Your task to perform on an android device: turn off translation in the chrome app Image 0: 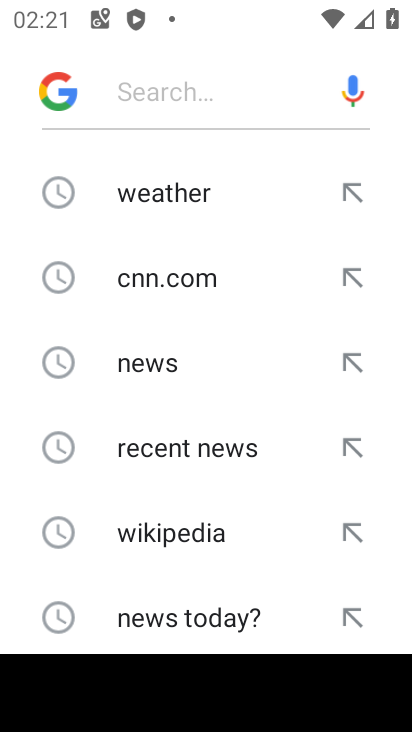
Step 0: press home button
Your task to perform on an android device: turn off translation in the chrome app Image 1: 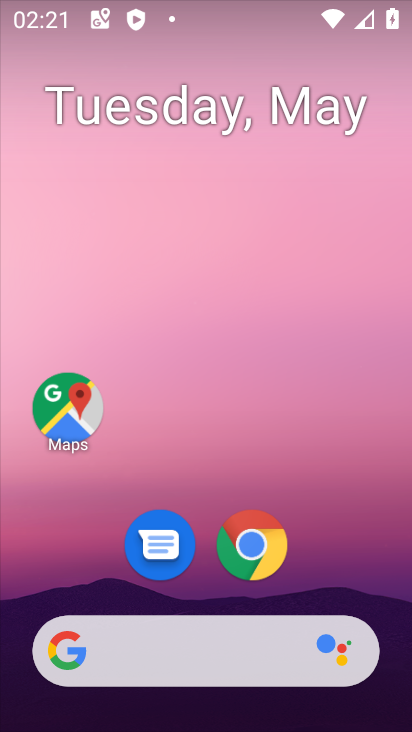
Step 1: click (250, 542)
Your task to perform on an android device: turn off translation in the chrome app Image 2: 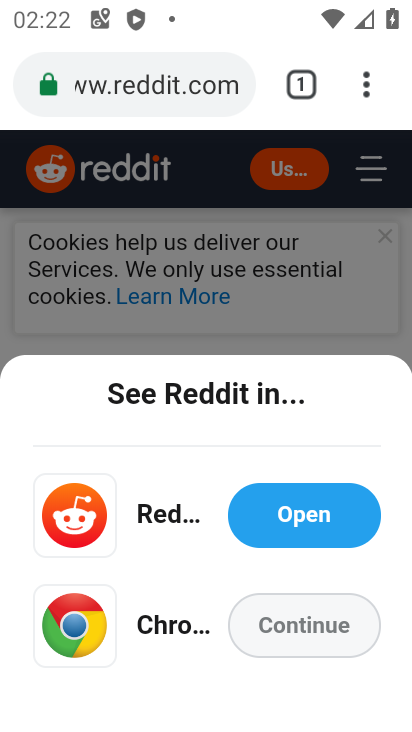
Step 2: click (363, 86)
Your task to perform on an android device: turn off translation in the chrome app Image 3: 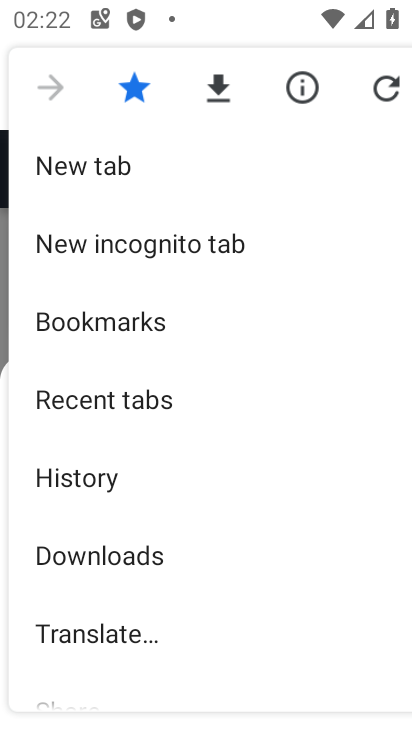
Step 3: drag from (194, 635) to (263, 260)
Your task to perform on an android device: turn off translation in the chrome app Image 4: 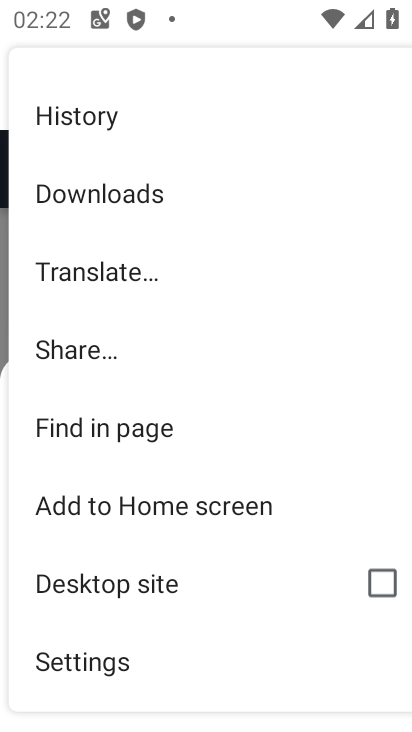
Step 4: drag from (238, 621) to (276, 248)
Your task to perform on an android device: turn off translation in the chrome app Image 5: 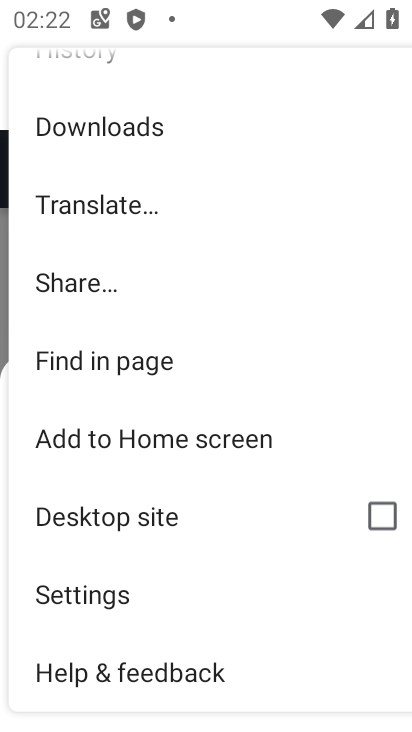
Step 5: click (83, 606)
Your task to perform on an android device: turn off translation in the chrome app Image 6: 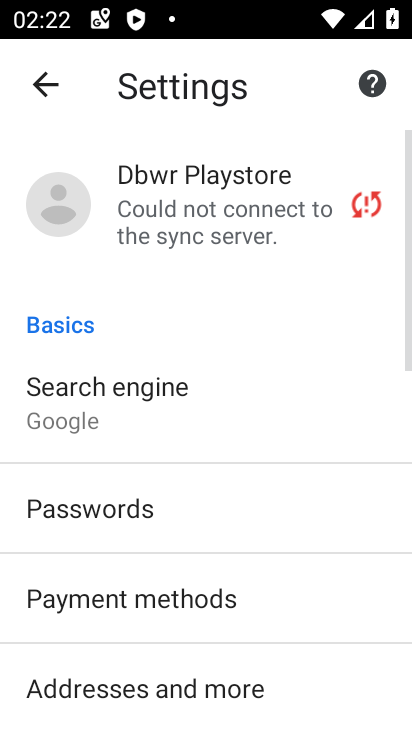
Step 6: drag from (290, 655) to (241, 29)
Your task to perform on an android device: turn off translation in the chrome app Image 7: 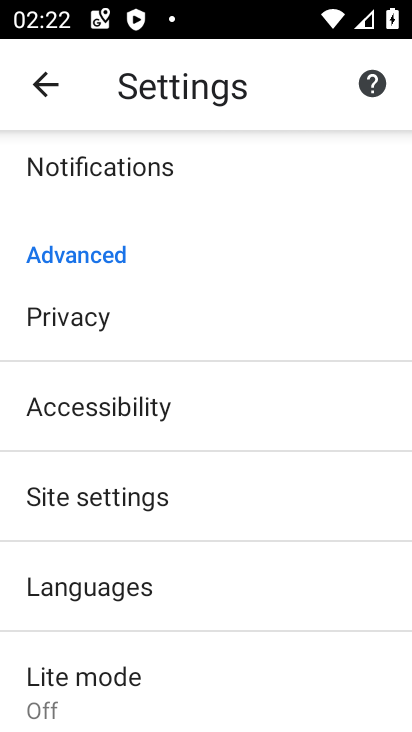
Step 7: click (96, 595)
Your task to perform on an android device: turn off translation in the chrome app Image 8: 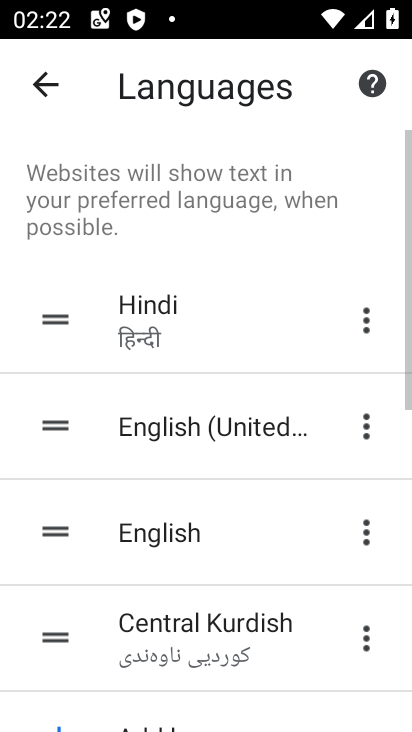
Step 8: drag from (314, 664) to (235, 132)
Your task to perform on an android device: turn off translation in the chrome app Image 9: 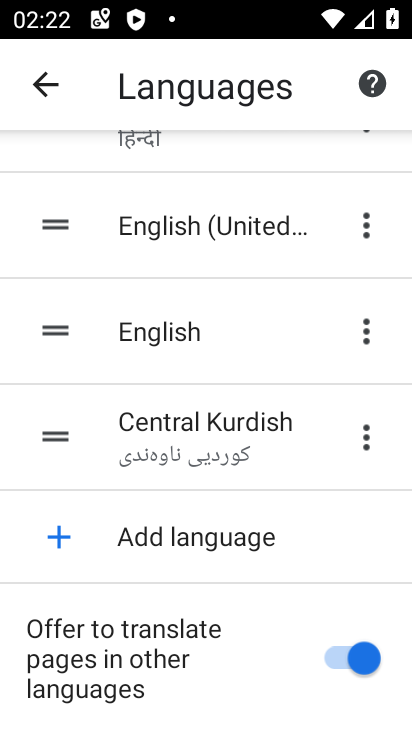
Step 9: click (332, 655)
Your task to perform on an android device: turn off translation in the chrome app Image 10: 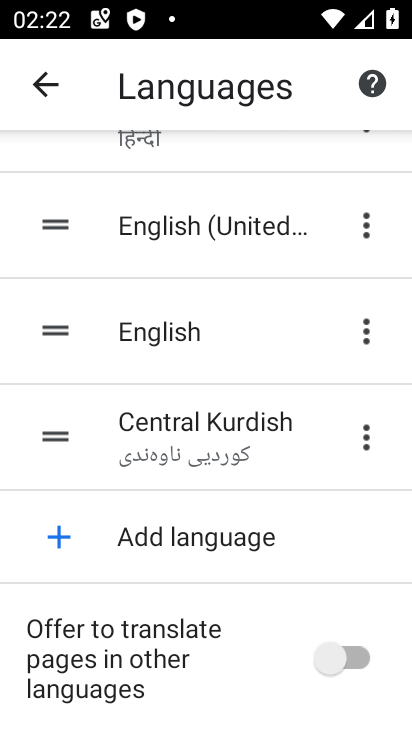
Step 10: task complete